Your task to perform on an android device: Go to eBay Image 0: 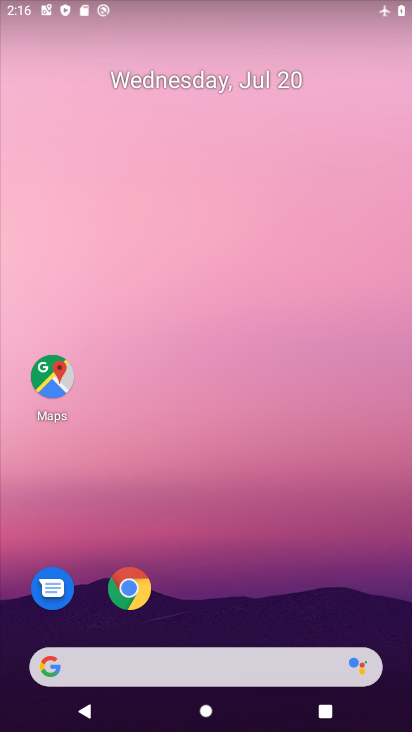
Step 0: drag from (312, 562) to (294, 9)
Your task to perform on an android device: Go to eBay Image 1: 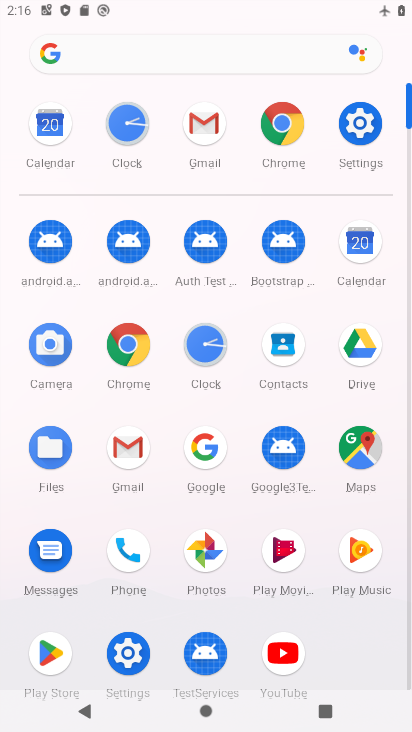
Step 1: click (275, 134)
Your task to perform on an android device: Go to eBay Image 2: 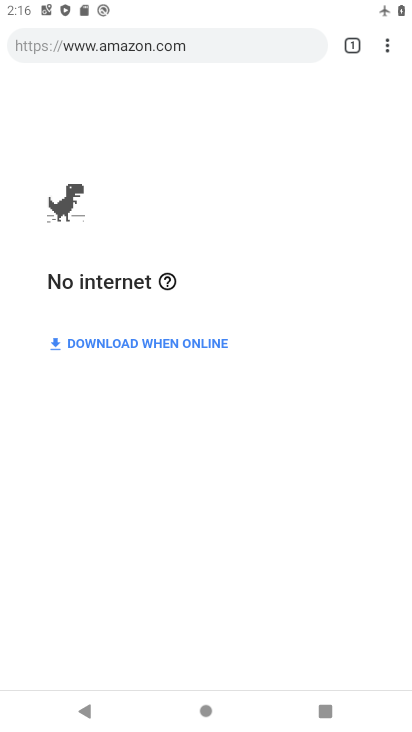
Step 2: task complete